Your task to perform on an android device: change the clock display to show seconds Image 0: 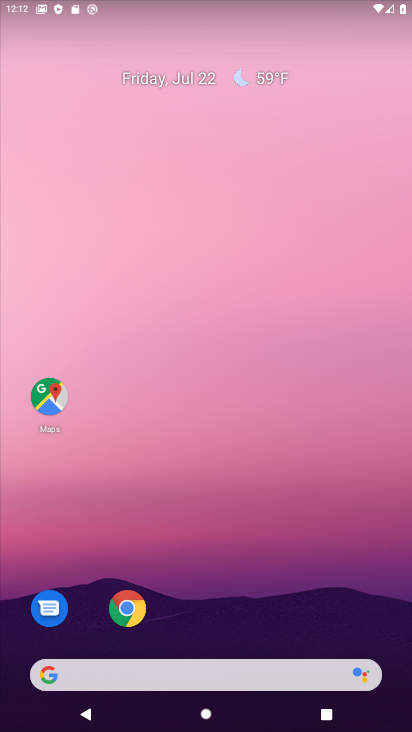
Step 0: drag from (218, 574) to (398, 402)
Your task to perform on an android device: change the clock display to show seconds Image 1: 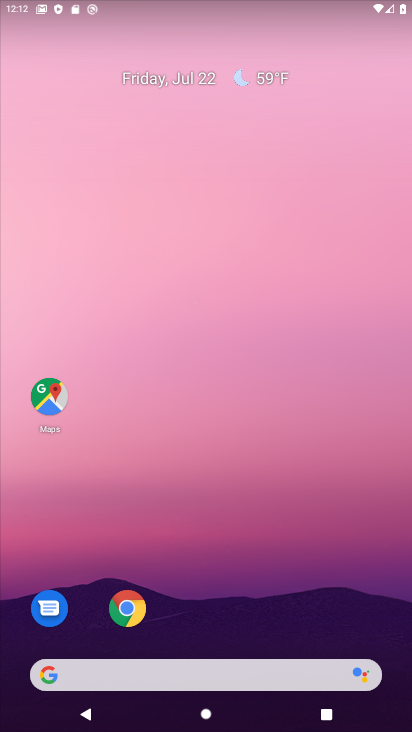
Step 1: drag from (202, 633) to (167, 1)
Your task to perform on an android device: change the clock display to show seconds Image 2: 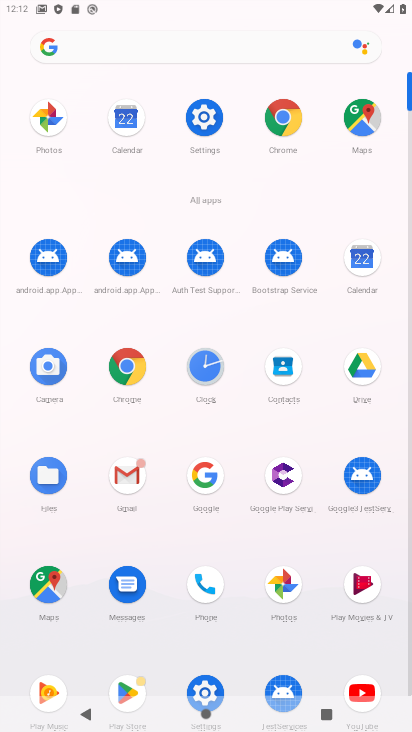
Step 2: click (199, 374)
Your task to perform on an android device: change the clock display to show seconds Image 3: 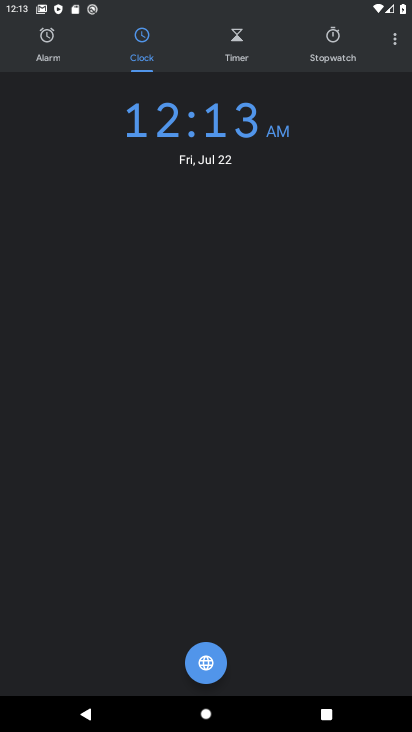
Step 3: click (394, 46)
Your task to perform on an android device: change the clock display to show seconds Image 4: 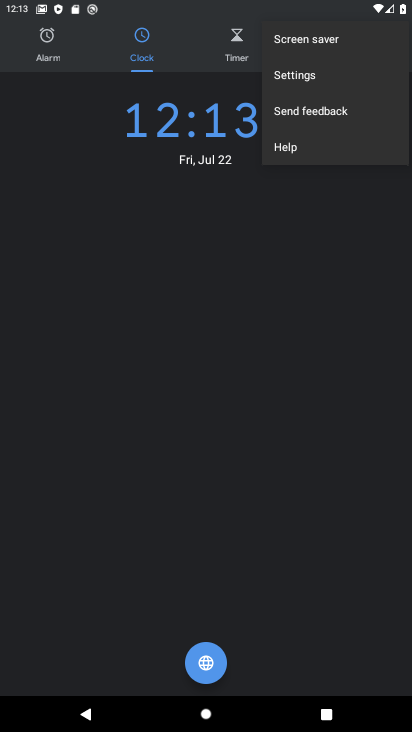
Step 4: click (298, 78)
Your task to perform on an android device: change the clock display to show seconds Image 5: 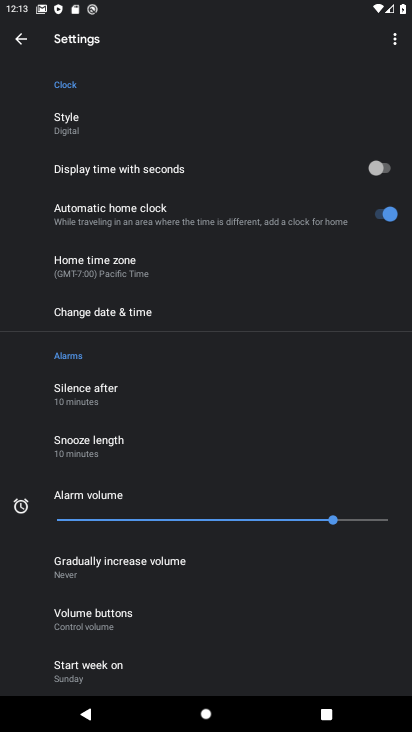
Step 5: click (74, 121)
Your task to perform on an android device: change the clock display to show seconds Image 6: 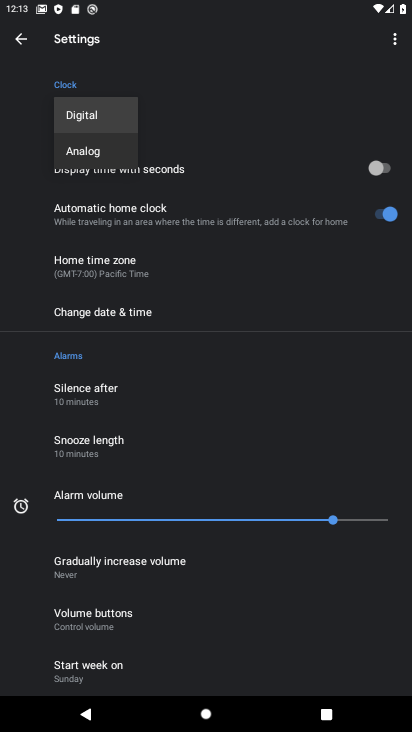
Step 6: click (101, 157)
Your task to perform on an android device: change the clock display to show seconds Image 7: 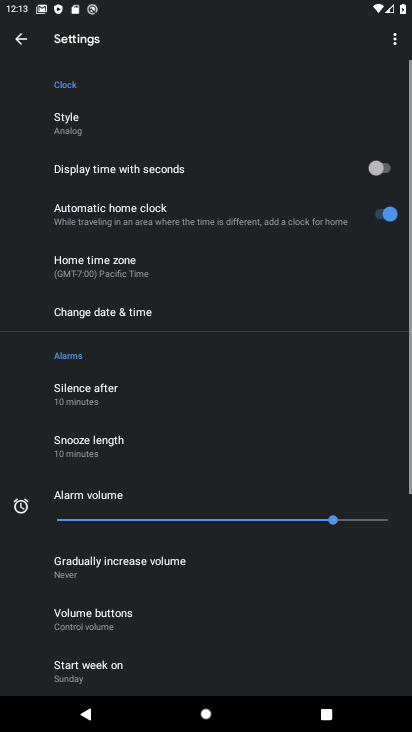
Step 7: click (397, 170)
Your task to perform on an android device: change the clock display to show seconds Image 8: 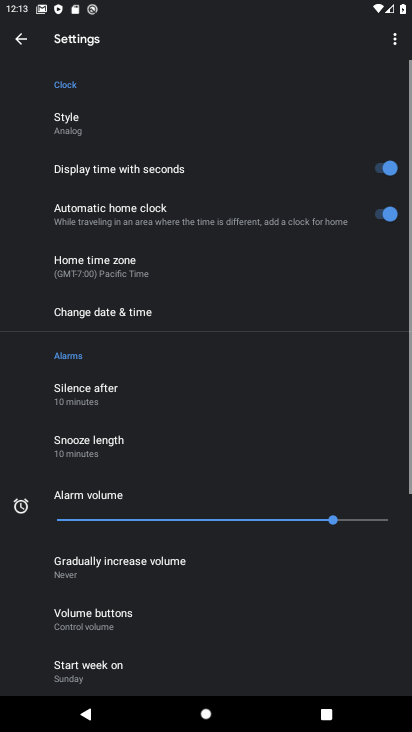
Step 8: task complete